Your task to perform on an android device: toggle translation in the chrome app Image 0: 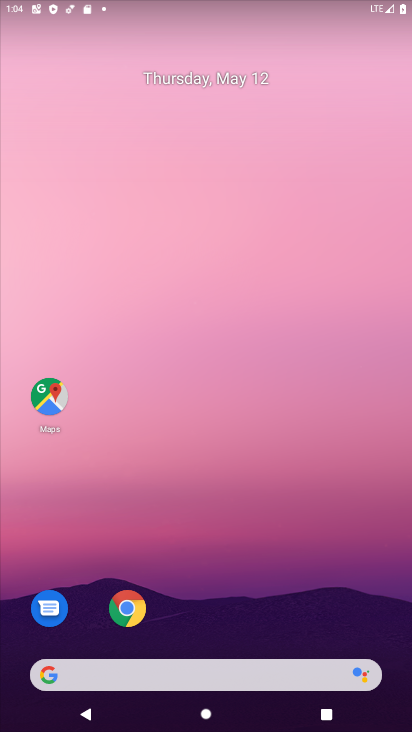
Step 0: click (124, 605)
Your task to perform on an android device: toggle translation in the chrome app Image 1: 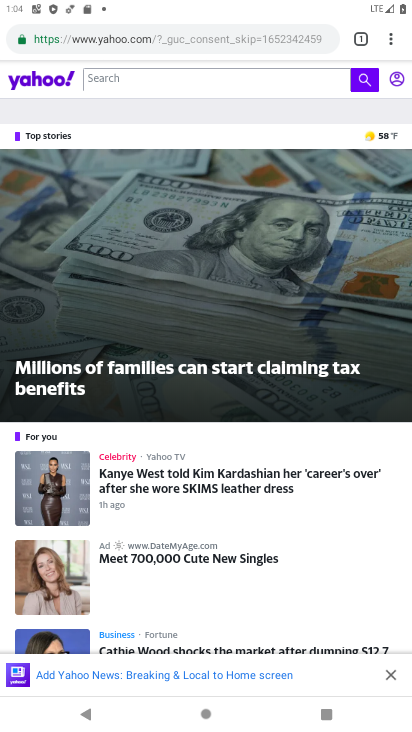
Step 1: click (390, 41)
Your task to perform on an android device: toggle translation in the chrome app Image 2: 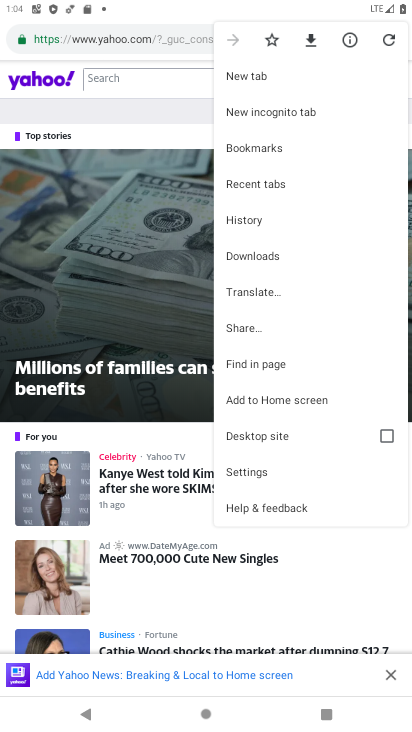
Step 2: click (253, 471)
Your task to perform on an android device: toggle translation in the chrome app Image 3: 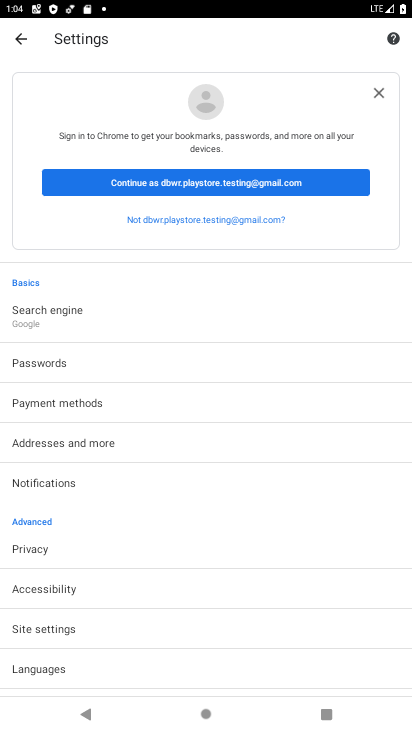
Step 3: click (57, 669)
Your task to perform on an android device: toggle translation in the chrome app Image 4: 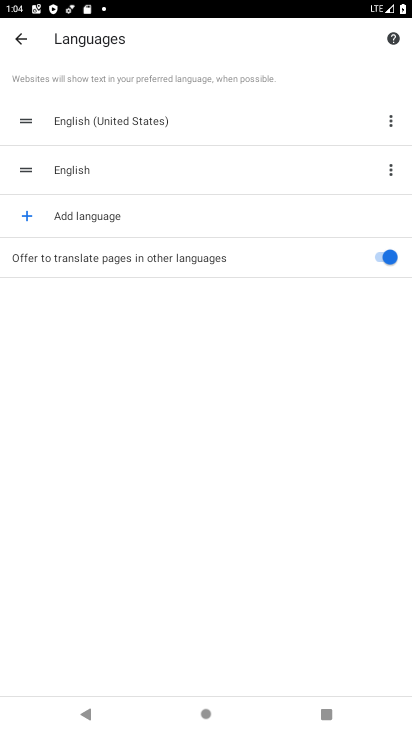
Step 4: click (377, 258)
Your task to perform on an android device: toggle translation in the chrome app Image 5: 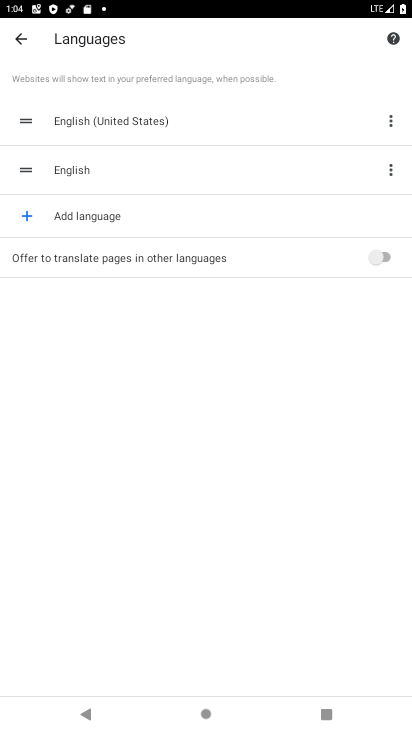
Step 5: task complete